Your task to perform on an android device: Open the Play Movies app and select the watchlist tab. Image 0: 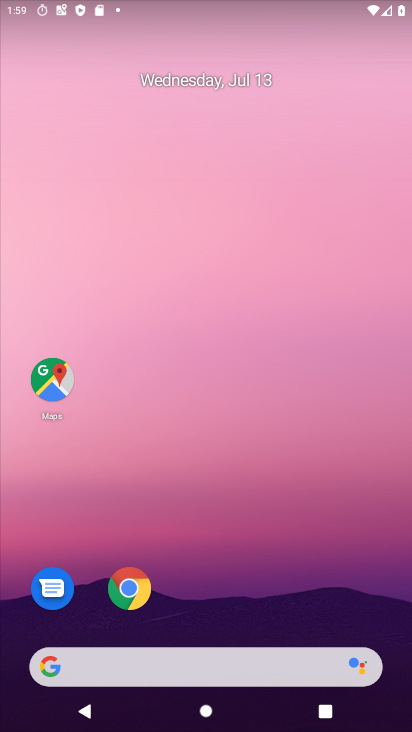
Step 0: drag from (196, 651) to (257, 313)
Your task to perform on an android device: Open the Play Movies app and select the watchlist tab. Image 1: 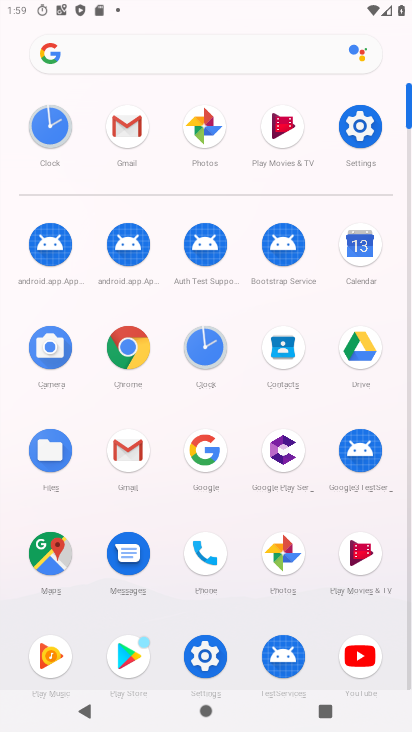
Step 1: click (359, 556)
Your task to perform on an android device: Open the Play Movies app and select the watchlist tab. Image 2: 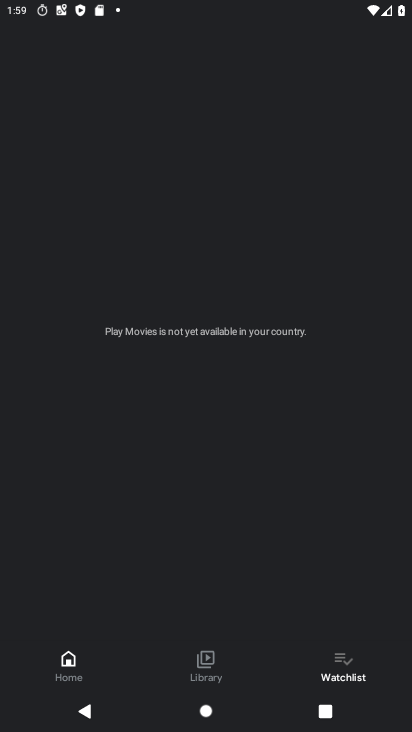
Step 2: click (340, 675)
Your task to perform on an android device: Open the Play Movies app and select the watchlist tab. Image 3: 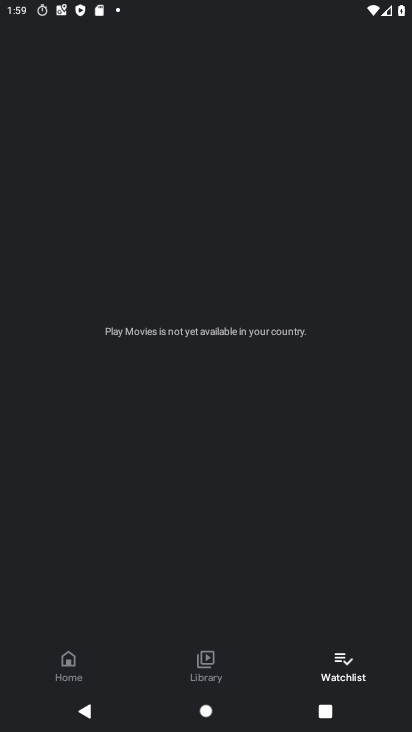
Step 3: task complete